Your task to perform on an android device: turn on showing notifications on the lock screen Image 0: 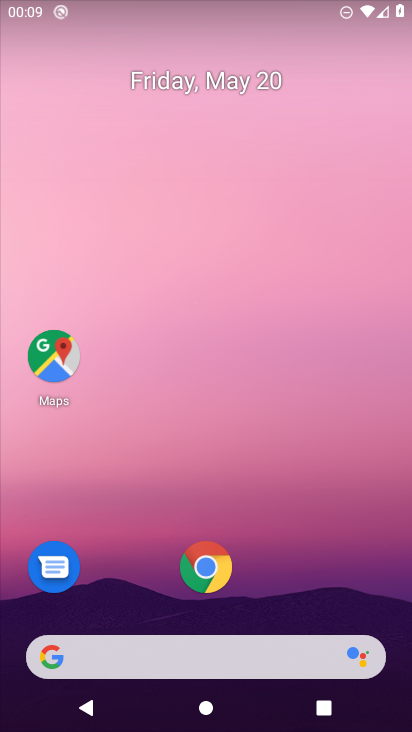
Step 0: press home button
Your task to perform on an android device: turn on showing notifications on the lock screen Image 1: 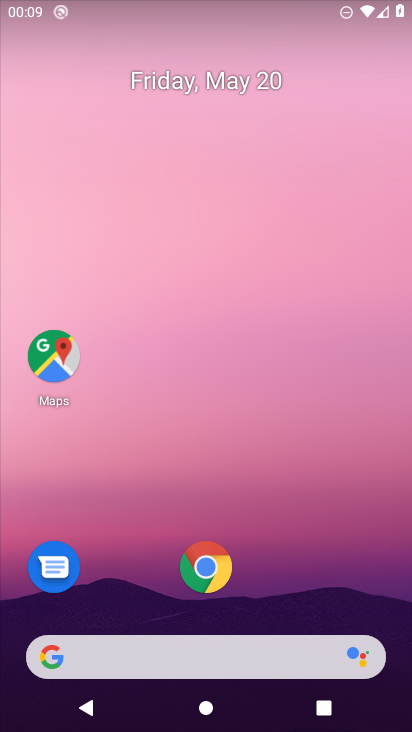
Step 1: drag from (267, 615) to (353, 86)
Your task to perform on an android device: turn on showing notifications on the lock screen Image 2: 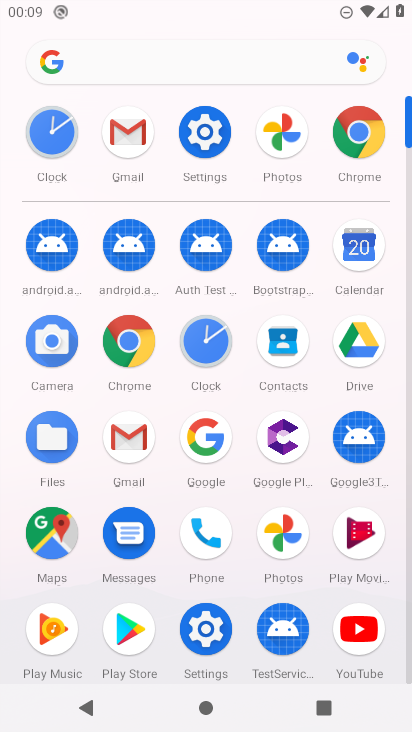
Step 2: click (202, 126)
Your task to perform on an android device: turn on showing notifications on the lock screen Image 3: 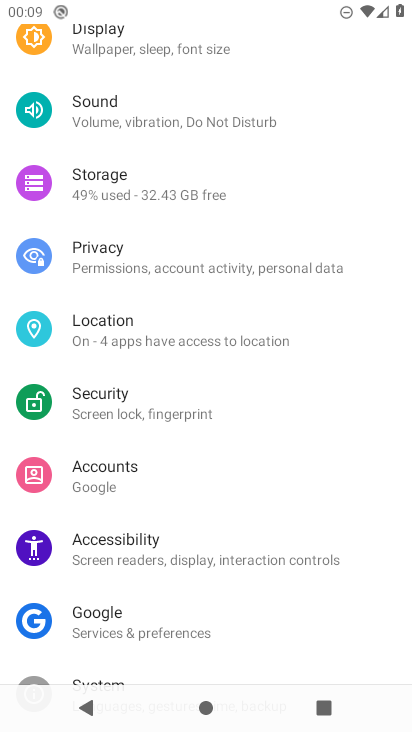
Step 3: drag from (139, 59) to (191, 690)
Your task to perform on an android device: turn on showing notifications on the lock screen Image 4: 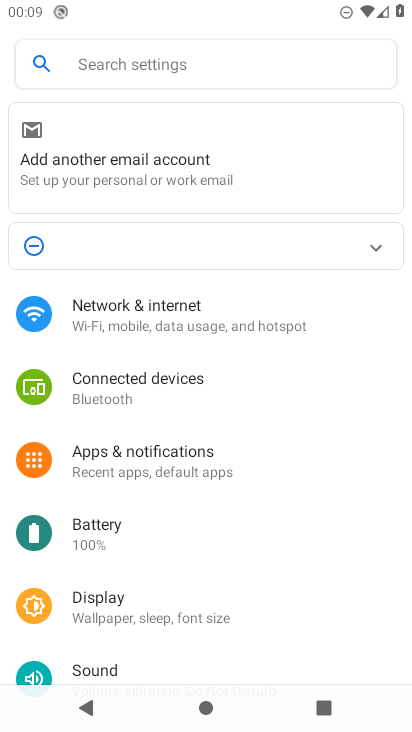
Step 4: click (225, 460)
Your task to perform on an android device: turn on showing notifications on the lock screen Image 5: 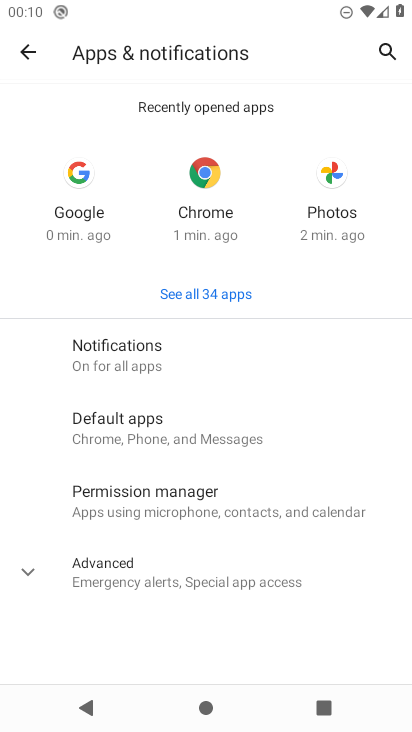
Step 5: click (171, 356)
Your task to perform on an android device: turn on showing notifications on the lock screen Image 6: 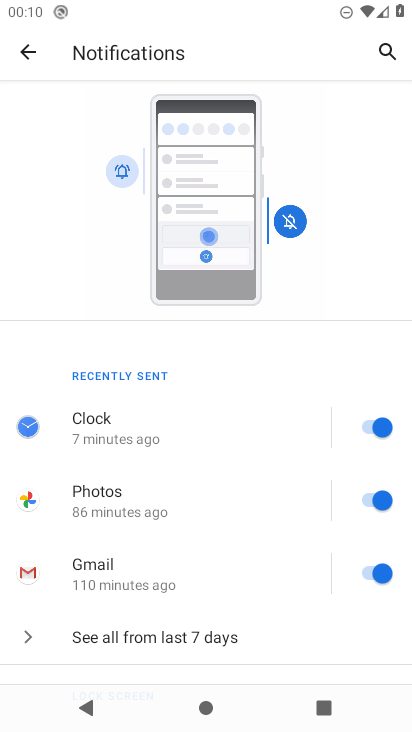
Step 6: drag from (197, 626) to (214, 179)
Your task to perform on an android device: turn on showing notifications on the lock screen Image 7: 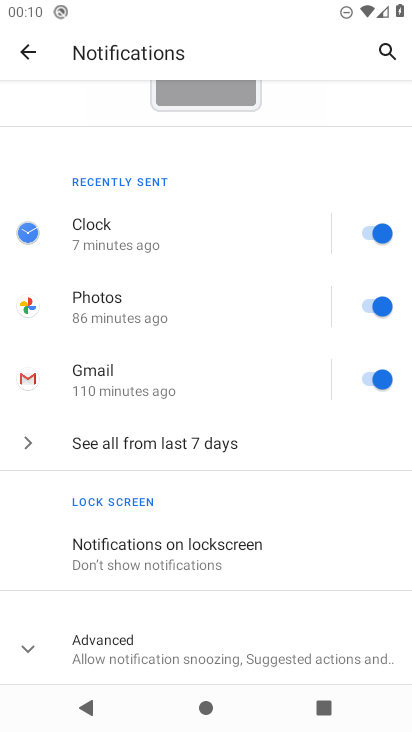
Step 7: click (242, 558)
Your task to perform on an android device: turn on showing notifications on the lock screen Image 8: 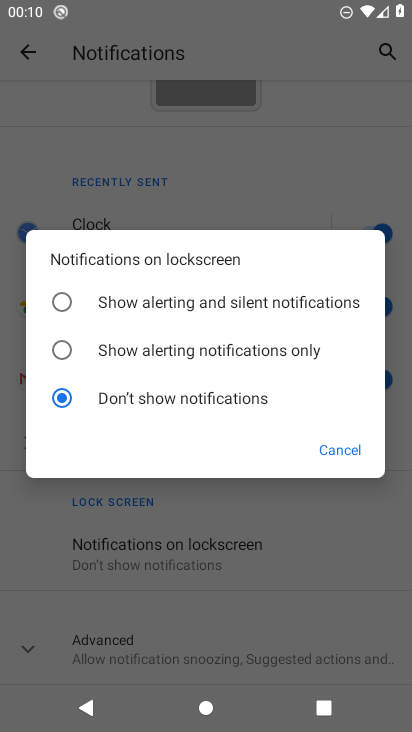
Step 8: click (61, 301)
Your task to perform on an android device: turn on showing notifications on the lock screen Image 9: 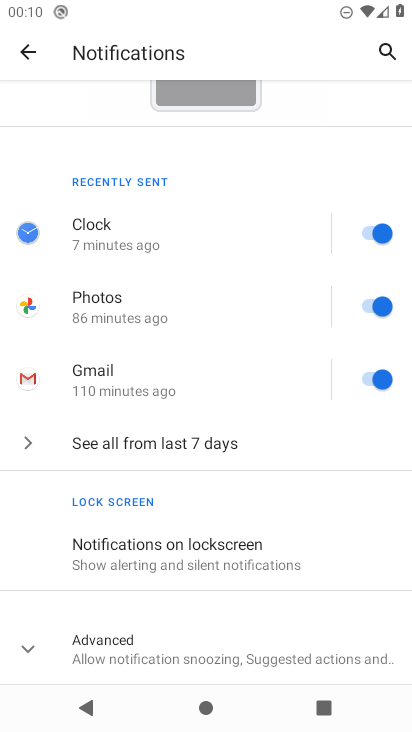
Step 9: task complete